Your task to perform on an android device: Go to sound settings Image 0: 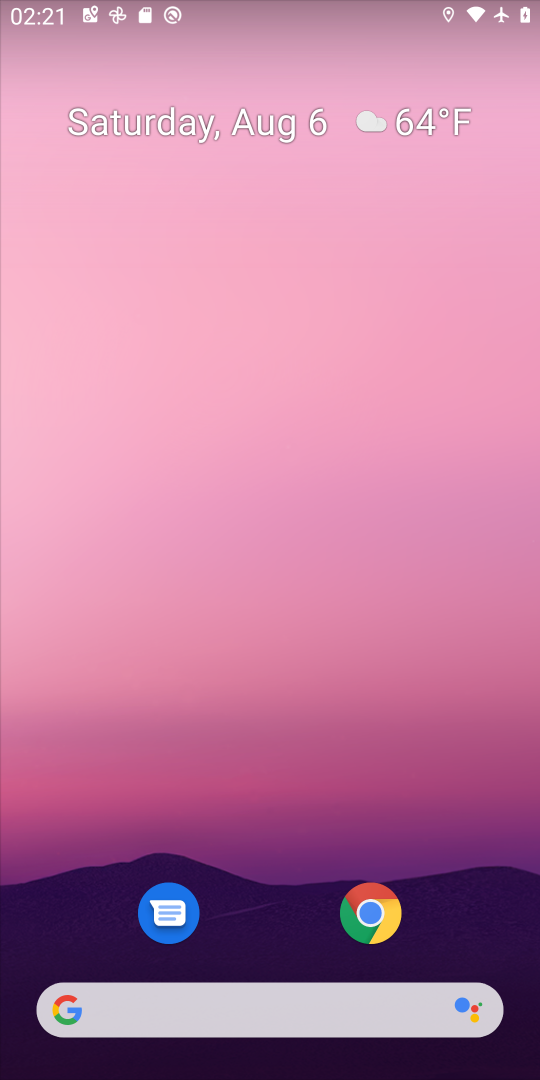
Step 0: press home button
Your task to perform on an android device: Go to sound settings Image 1: 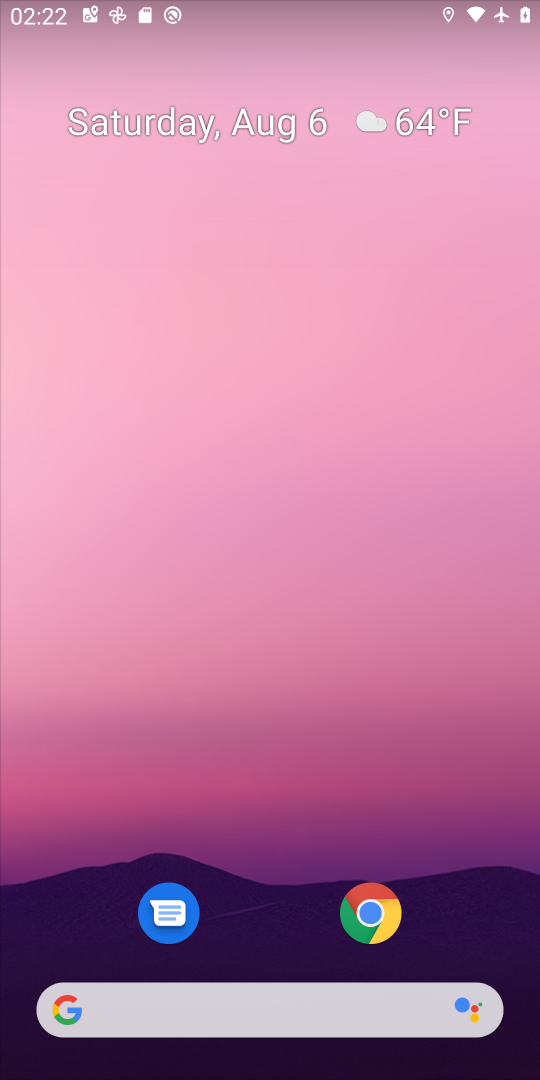
Step 1: drag from (446, 919) to (458, 178)
Your task to perform on an android device: Go to sound settings Image 2: 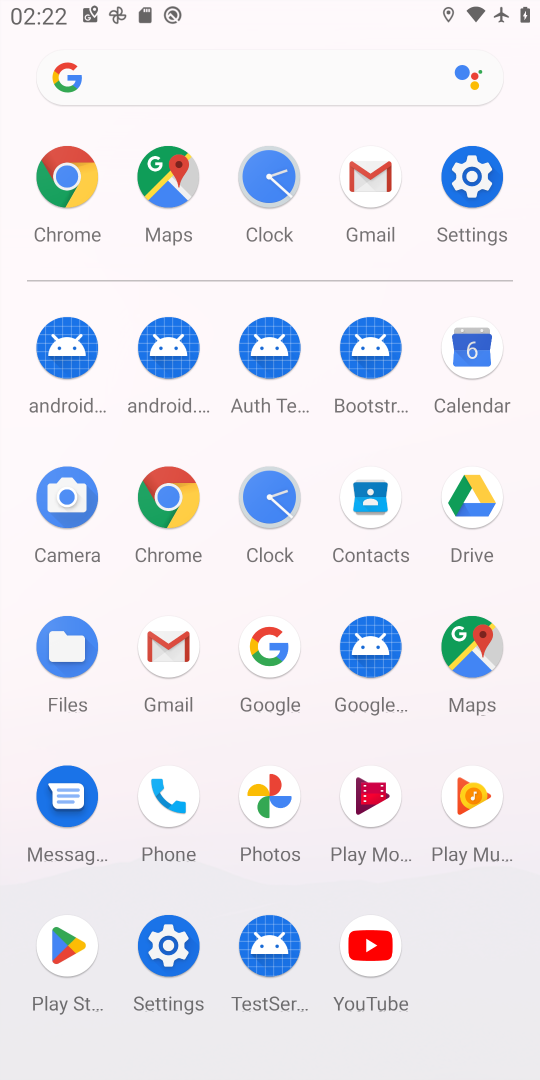
Step 2: click (471, 166)
Your task to perform on an android device: Go to sound settings Image 3: 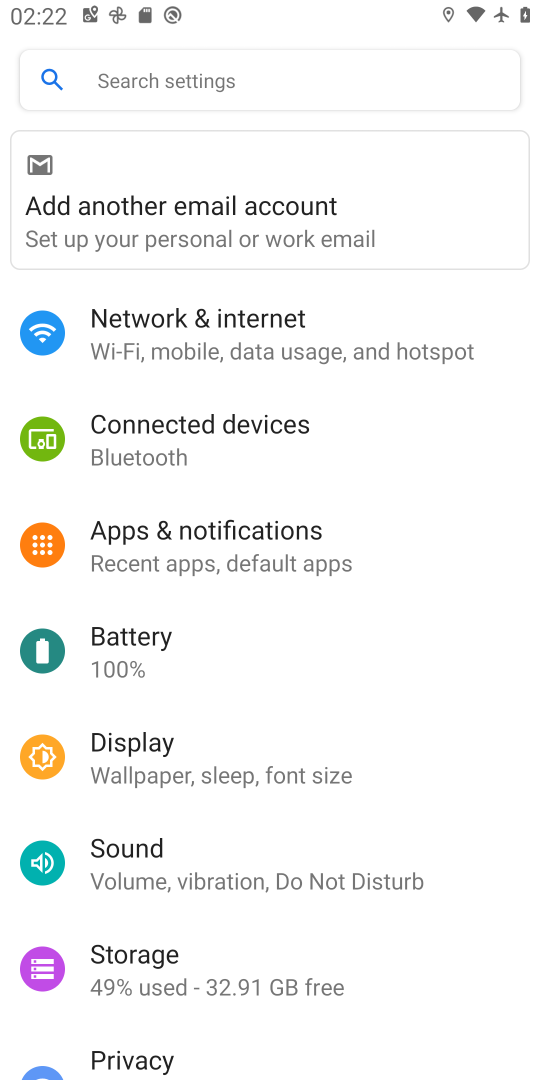
Step 3: drag from (405, 554) to (412, 456)
Your task to perform on an android device: Go to sound settings Image 4: 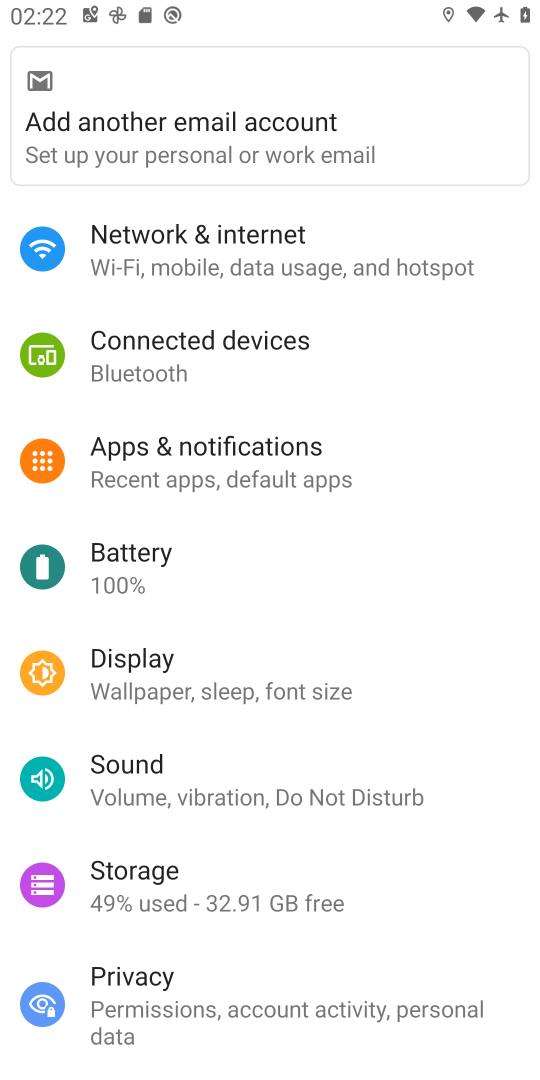
Step 4: drag from (420, 567) to (436, 425)
Your task to perform on an android device: Go to sound settings Image 5: 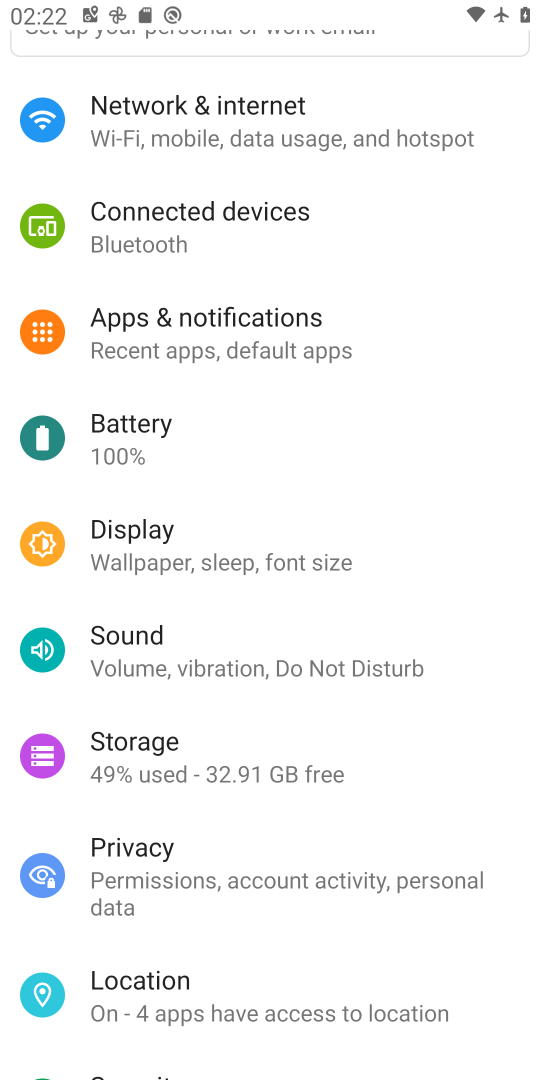
Step 5: drag from (426, 540) to (447, 371)
Your task to perform on an android device: Go to sound settings Image 6: 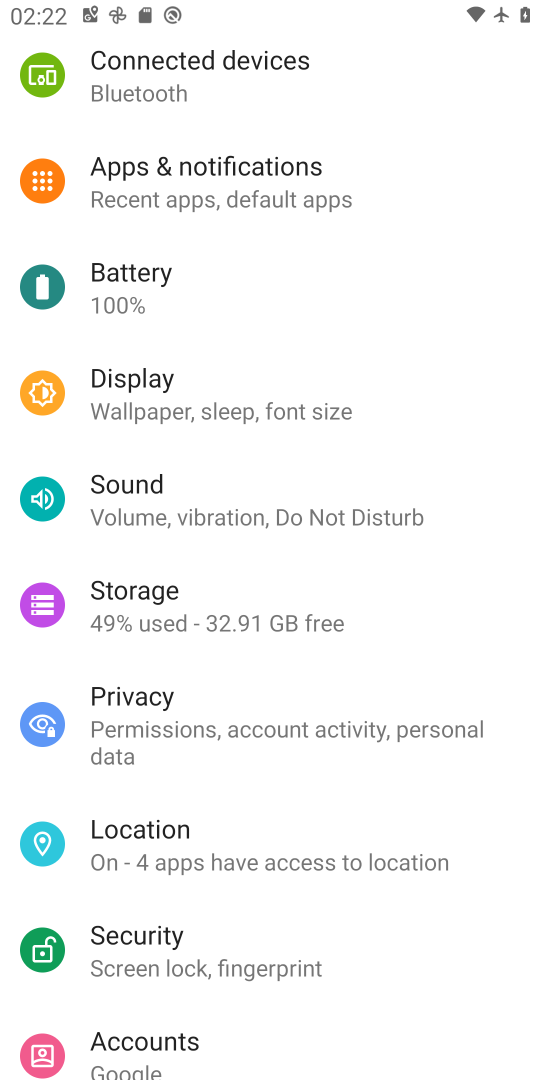
Step 6: drag from (443, 528) to (467, 361)
Your task to perform on an android device: Go to sound settings Image 7: 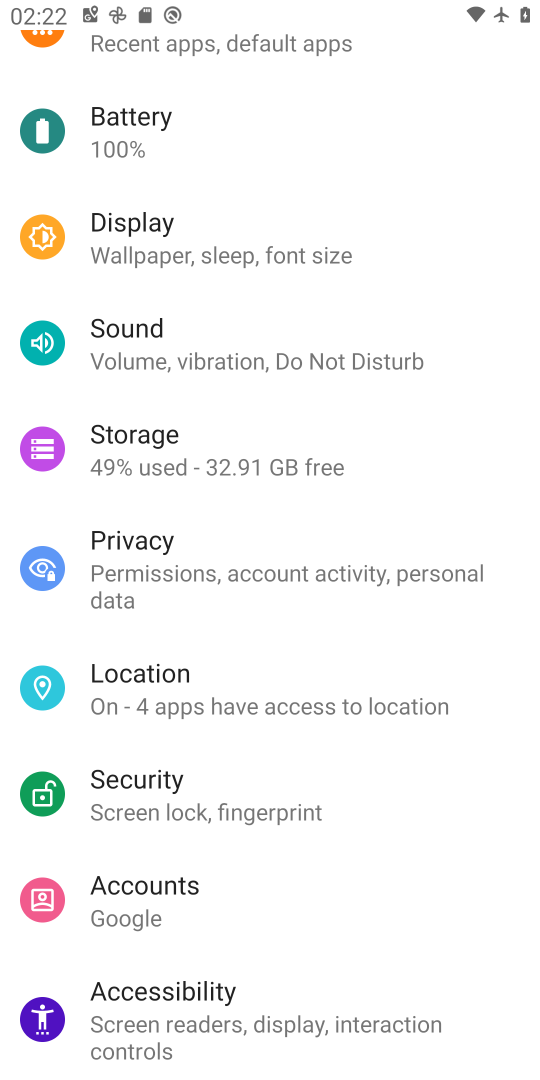
Step 7: click (396, 349)
Your task to perform on an android device: Go to sound settings Image 8: 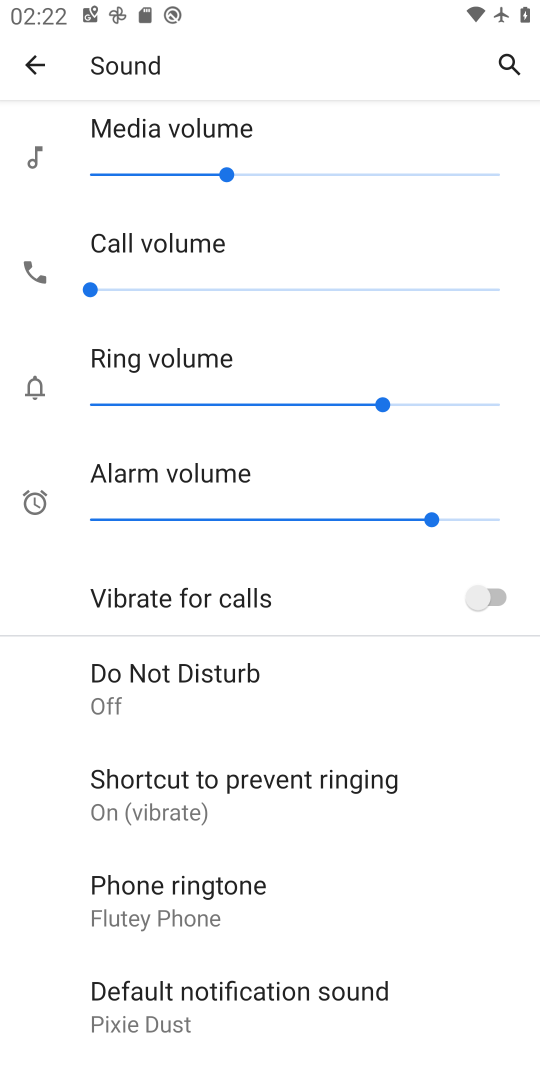
Step 8: task complete